Your task to perform on an android device: check storage Image 0: 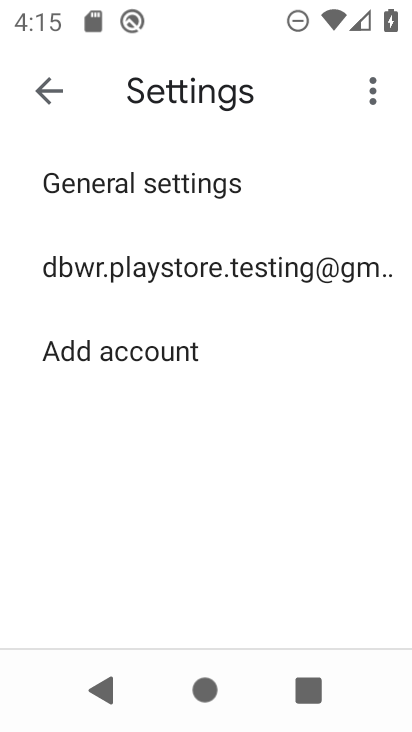
Step 0: press home button
Your task to perform on an android device: check storage Image 1: 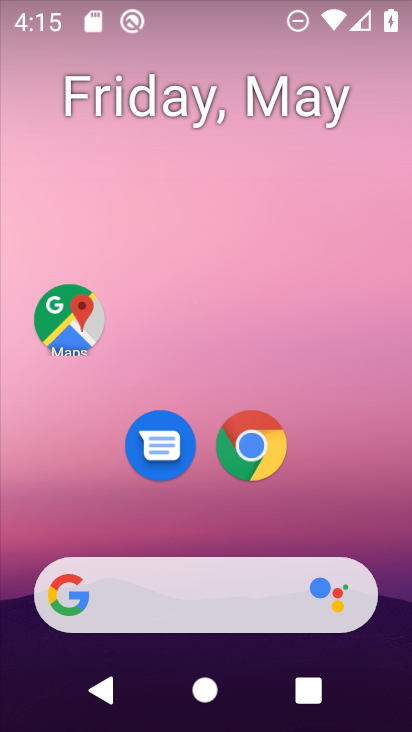
Step 1: drag from (273, 536) to (173, 107)
Your task to perform on an android device: check storage Image 2: 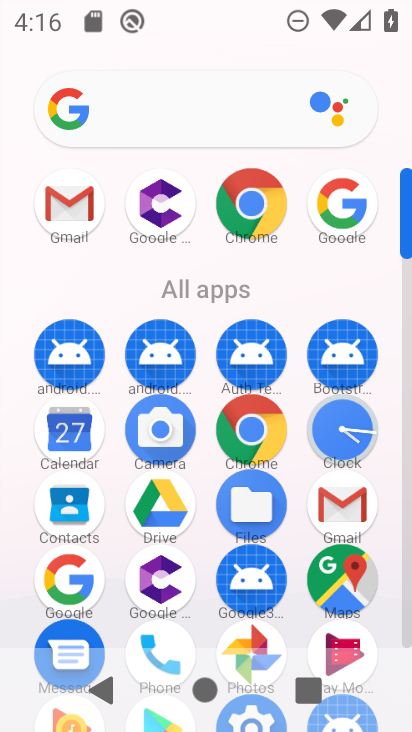
Step 2: drag from (294, 582) to (266, 122)
Your task to perform on an android device: check storage Image 3: 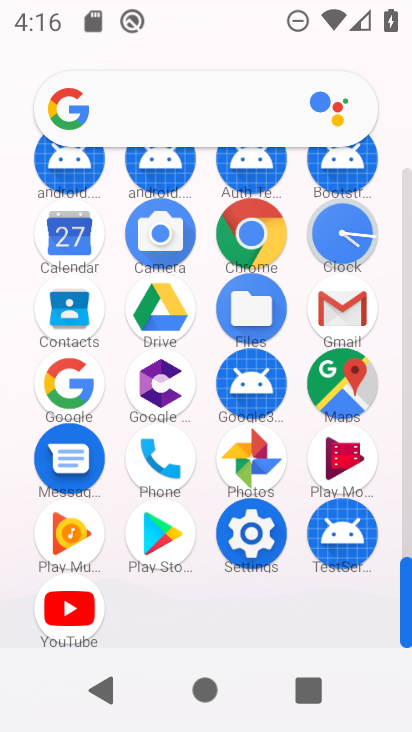
Step 3: click (249, 541)
Your task to perform on an android device: check storage Image 4: 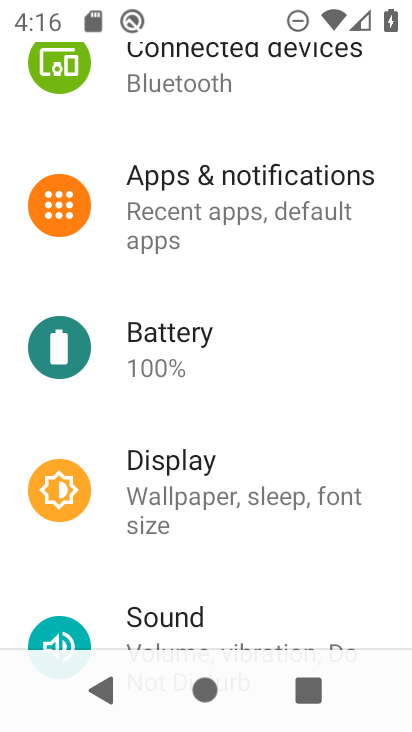
Step 4: drag from (202, 235) to (210, 573)
Your task to perform on an android device: check storage Image 5: 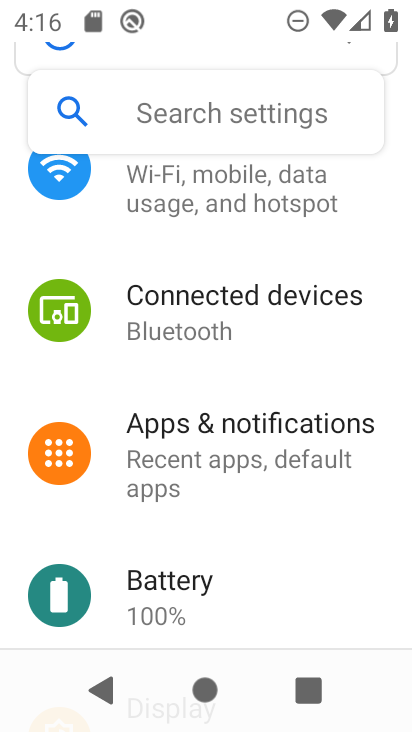
Step 5: drag from (216, 263) to (247, 705)
Your task to perform on an android device: check storage Image 6: 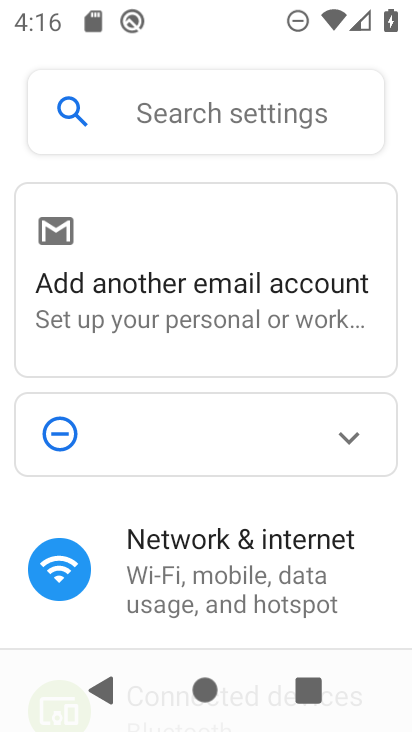
Step 6: drag from (223, 607) to (227, 225)
Your task to perform on an android device: check storage Image 7: 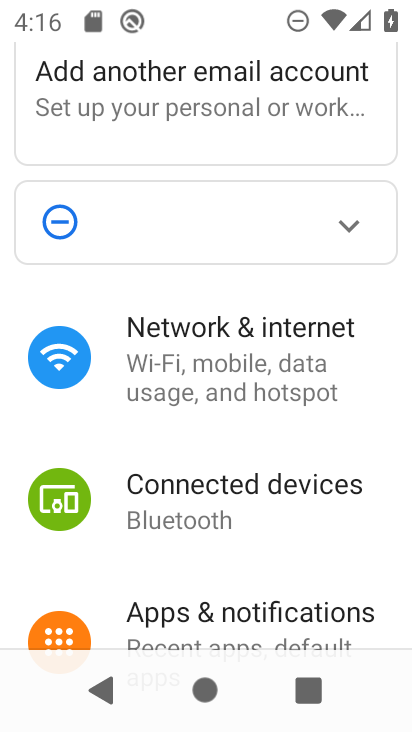
Step 7: drag from (249, 571) to (240, 135)
Your task to perform on an android device: check storage Image 8: 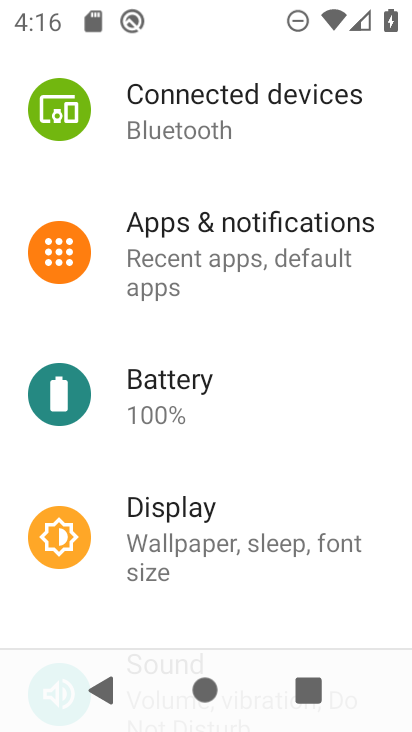
Step 8: drag from (227, 567) to (221, 112)
Your task to perform on an android device: check storage Image 9: 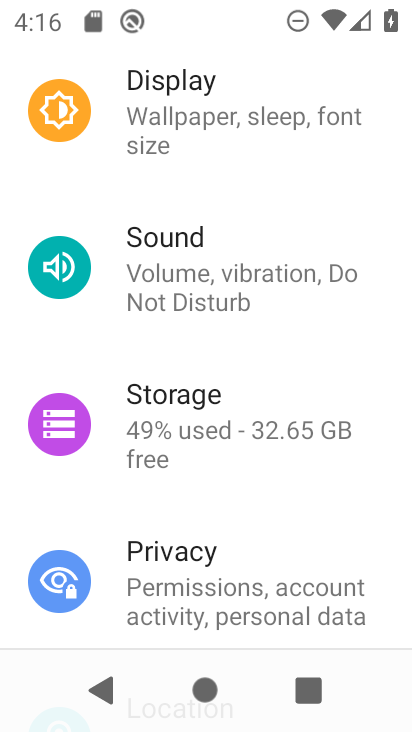
Step 9: click (197, 412)
Your task to perform on an android device: check storage Image 10: 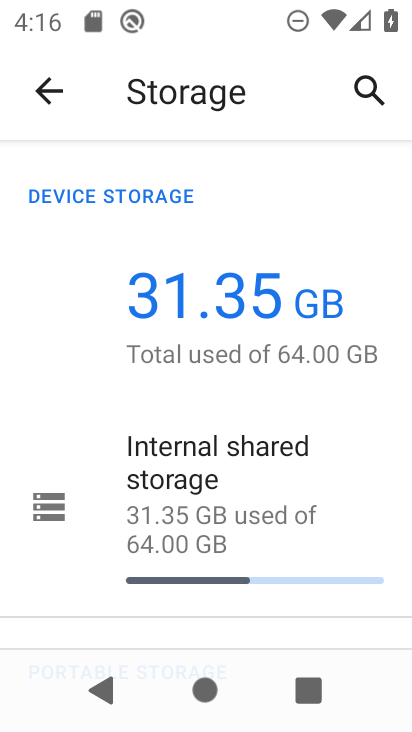
Step 10: task complete